Your task to perform on an android device: Go to Google maps Image 0: 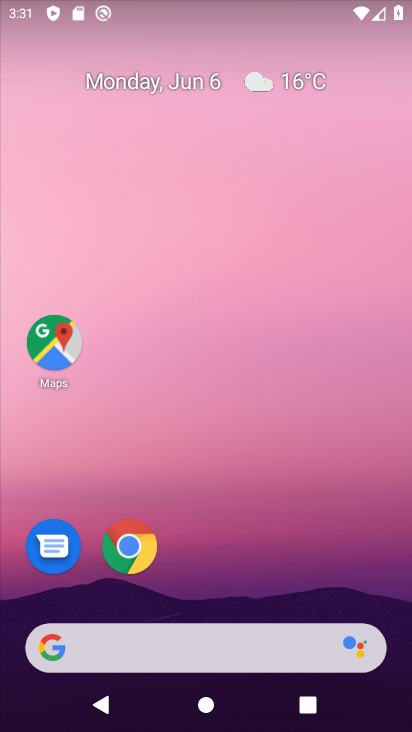
Step 0: drag from (318, 486) to (64, 23)
Your task to perform on an android device: Go to Google maps Image 1: 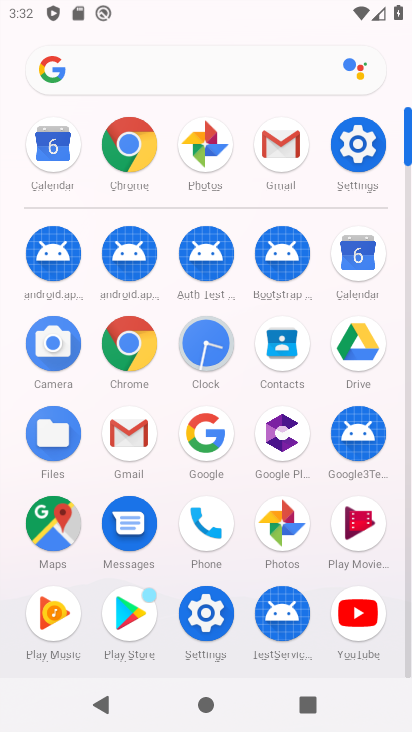
Step 1: click (223, 443)
Your task to perform on an android device: Go to Google maps Image 2: 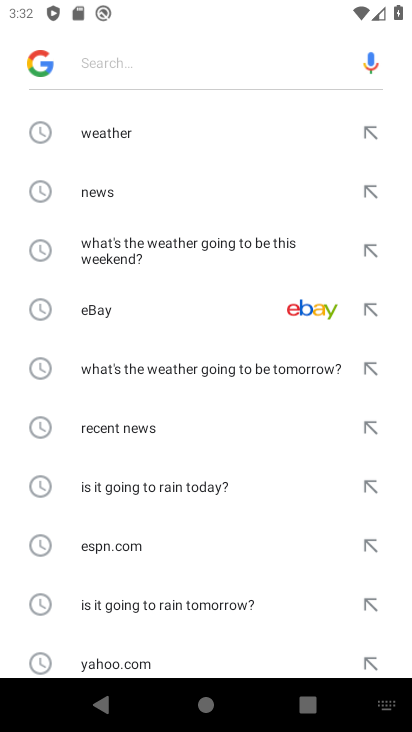
Step 2: press home button
Your task to perform on an android device: Go to Google maps Image 3: 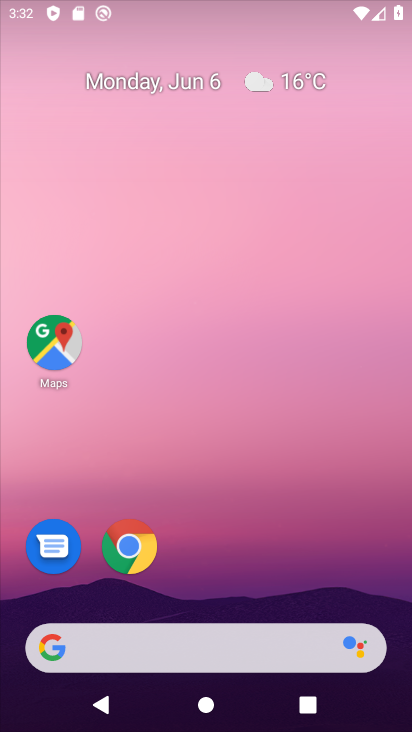
Step 3: drag from (316, 584) to (349, 5)
Your task to perform on an android device: Go to Google maps Image 4: 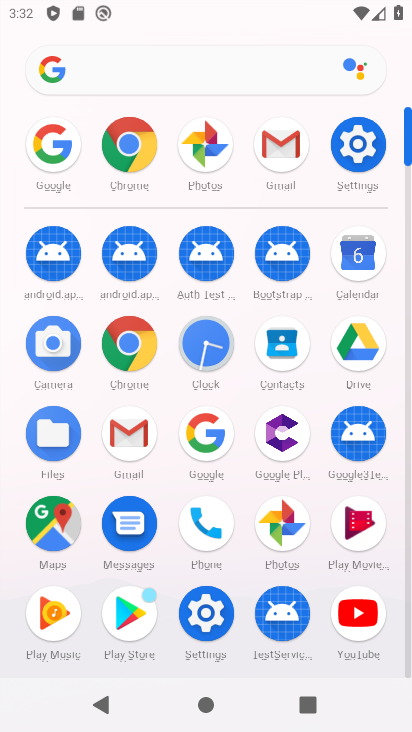
Step 4: click (37, 531)
Your task to perform on an android device: Go to Google maps Image 5: 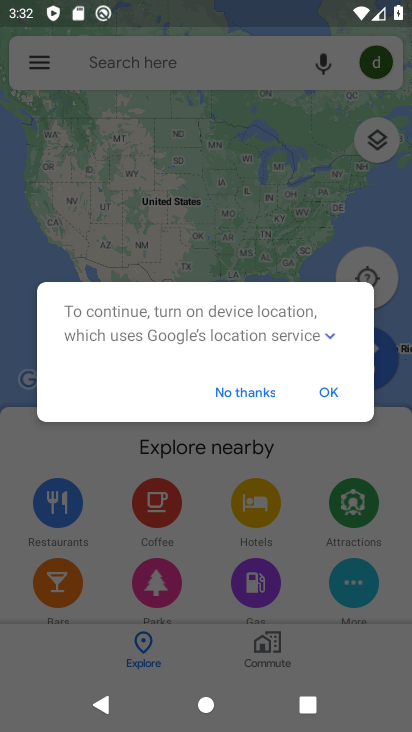
Step 5: task complete